Your task to perform on an android device: change the clock display to digital Image 0: 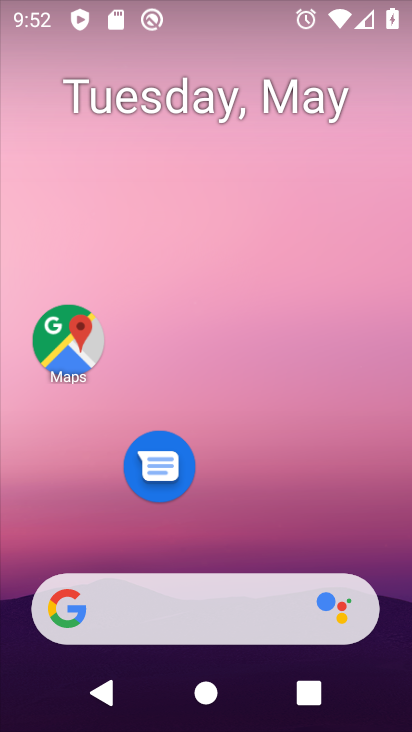
Step 0: drag from (384, 662) to (231, 115)
Your task to perform on an android device: change the clock display to digital Image 1: 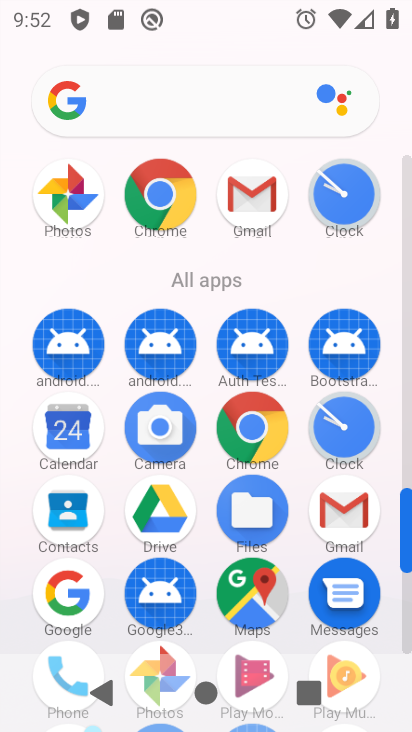
Step 1: click (338, 419)
Your task to perform on an android device: change the clock display to digital Image 2: 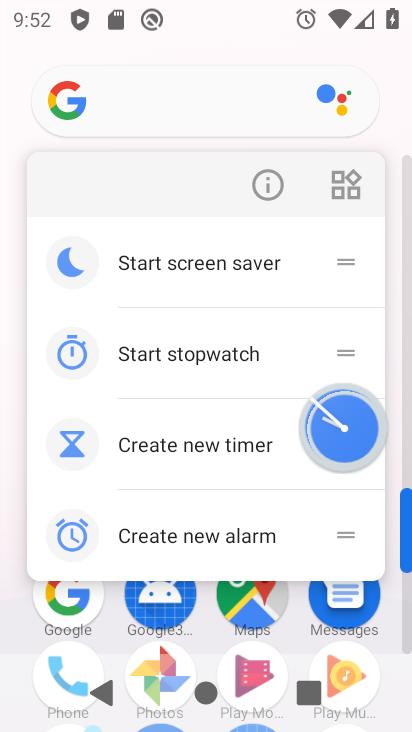
Step 2: click (347, 418)
Your task to perform on an android device: change the clock display to digital Image 3: 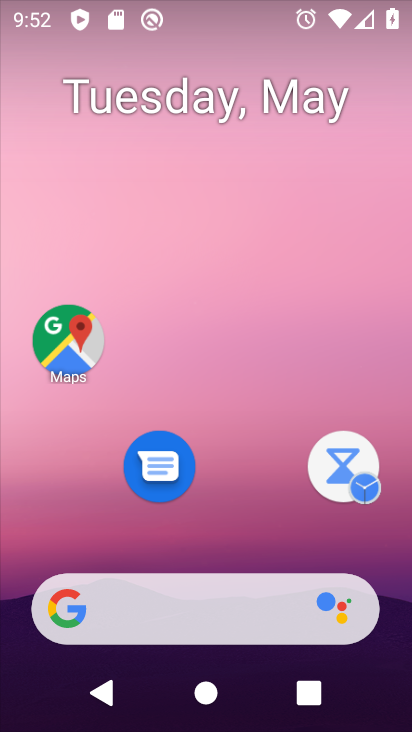
Step 3: drag from (358, 664) to (238, 5)
Your task to perform on an android device: change the clock display to digital Image 4: 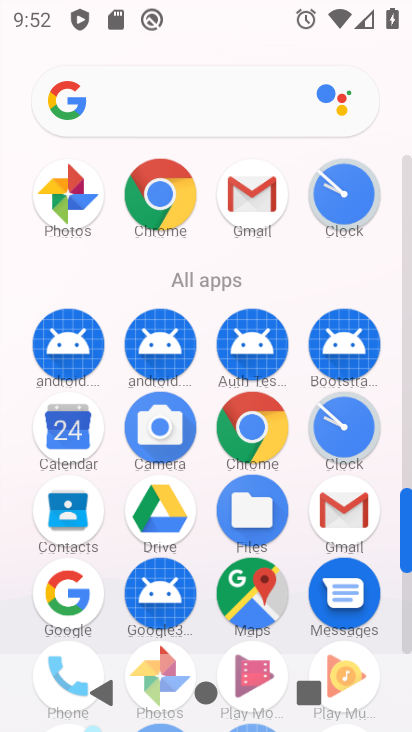
Step 4: click (333, 431)
Your task to perform on an android device: change the clock display to digital Image 5: 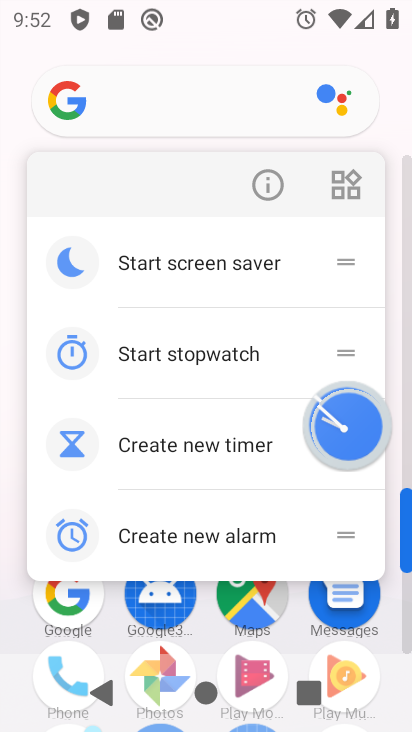
Step 5: click (337, 429)
Your task to perform on an android device: change the clock display to digital Image 6: 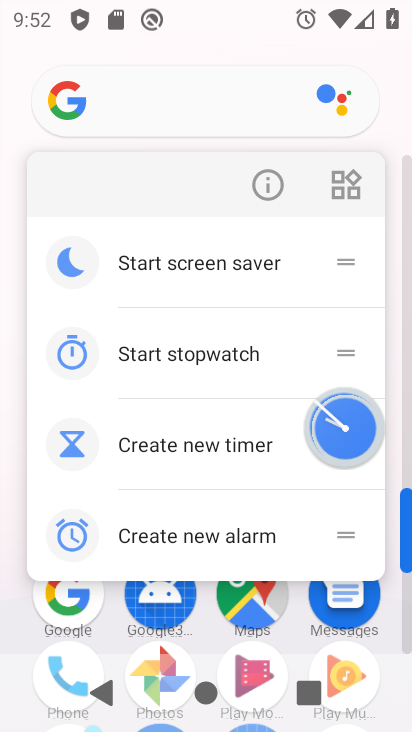
Step 6: click (337, 429)
Your task to perform on an android device: change the clock display to digital Image 7: 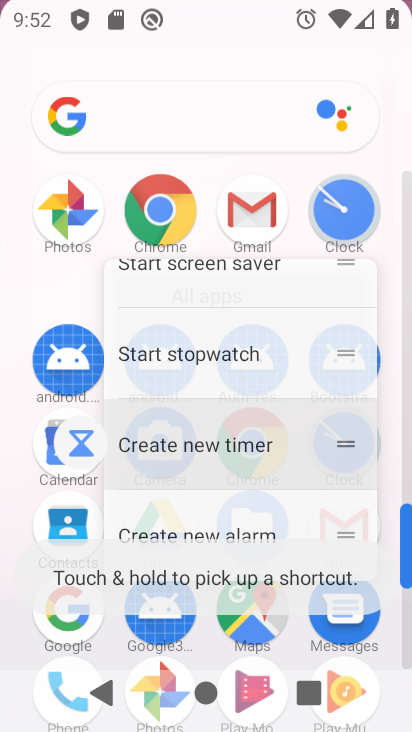
Step 7: click (339, 429)
Your task to perform on an android device: change the clock display to digital Image 8: 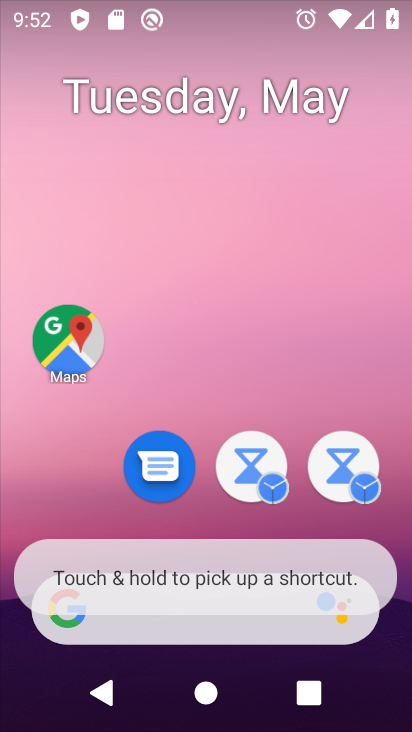
Step 8: drag from (369, 661) to (248, 110)
Your task to perform on an android device: change the clock display to digital Image 9: 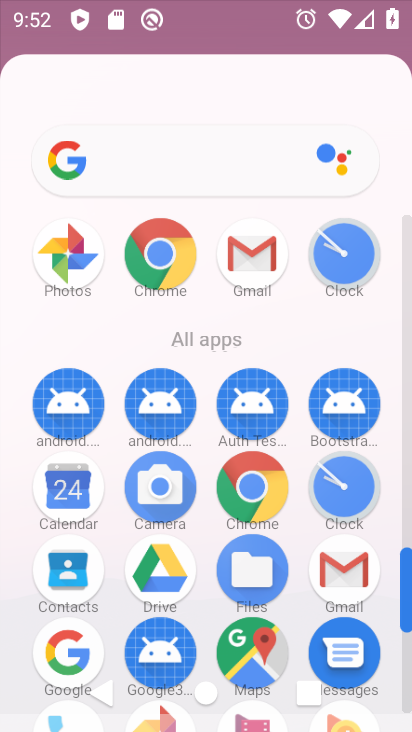
Step 9: drag from (288, 509) to (174, 112)
Your task to perform on an android device: change the clock display to digital Image 10: 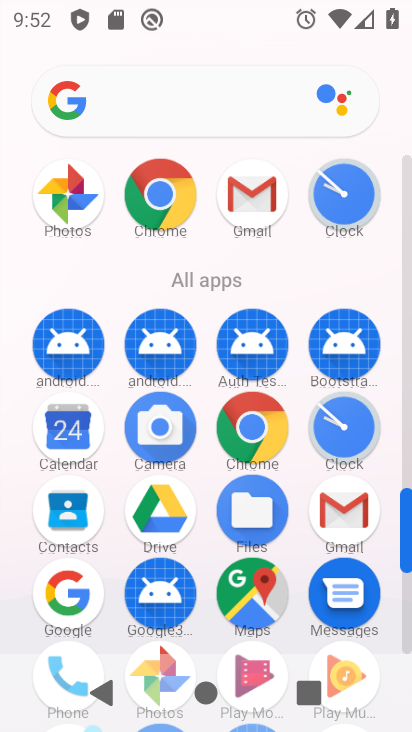
Step 10: drag from (333, 688) to (221, 72)
Your task to perform on an android device: change the clock display to digital Image 11: 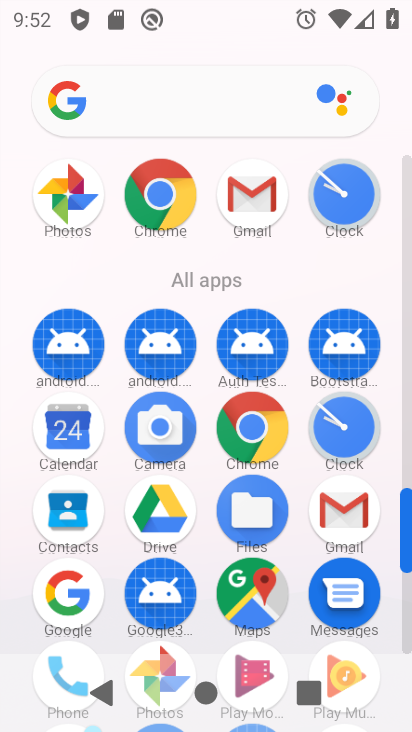
Step 11: click (333, 418)
Your task to perform on an android device: change the clock display to digital Image 12: 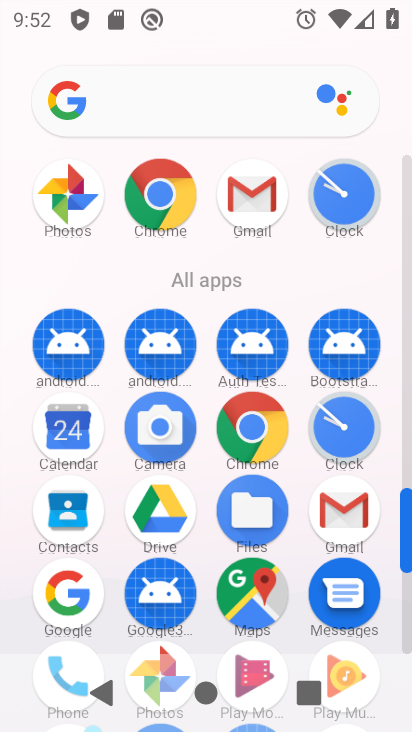
Step 12: click (333, 418)
Your task to perform on an android device: change the clock display to digital Image 13: 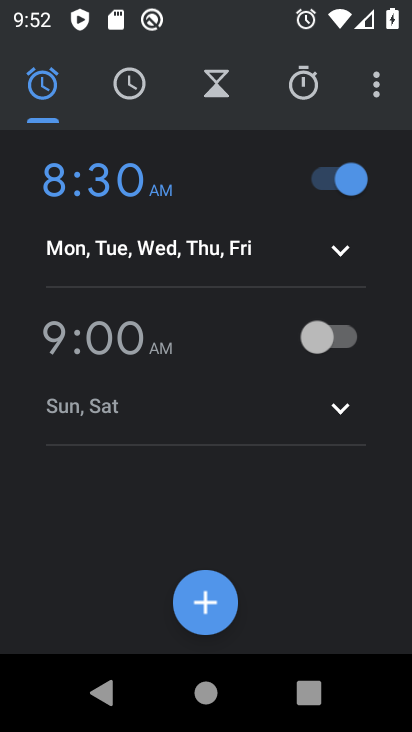
Step 13: click (377, 82)
Your task to perform on an android device: change the clock display to digital Image 14: 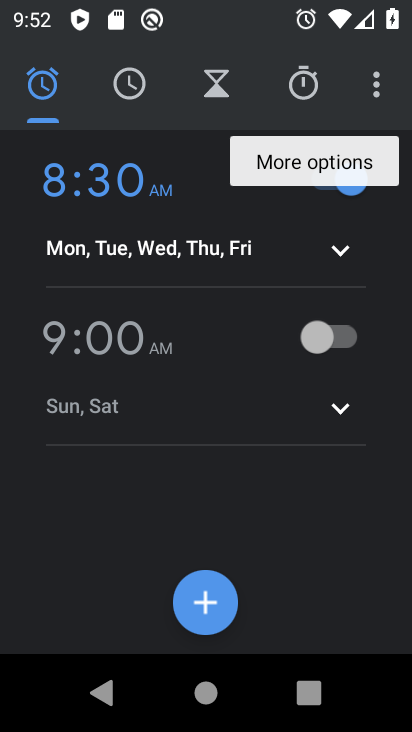
Step 14: click (378, 98)
Your task to perform on an android device: change the clock display to digital Image 15: 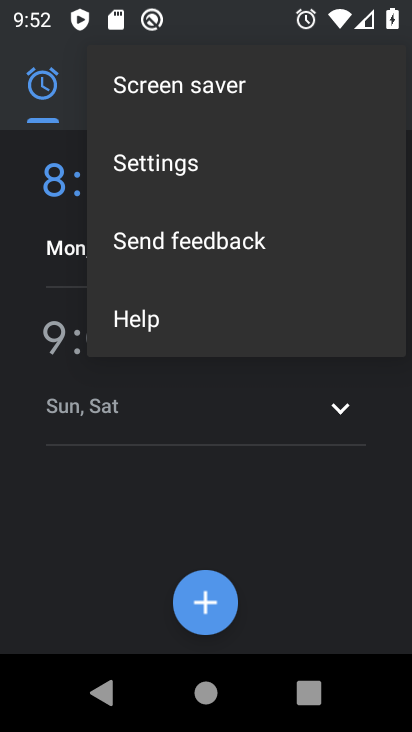
Step 15: click (379, 96)
Your task to perform on an android device: change the clock display to digital Image 16: 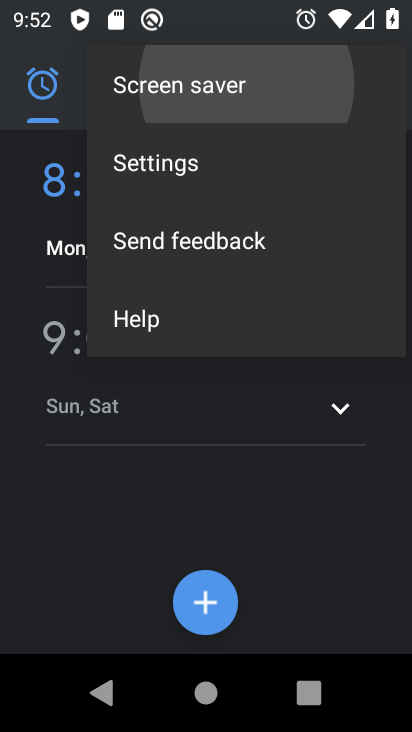
Step 16: click (379, 96)
Your task to perform on an android device: change the clock display to digital Image 17: 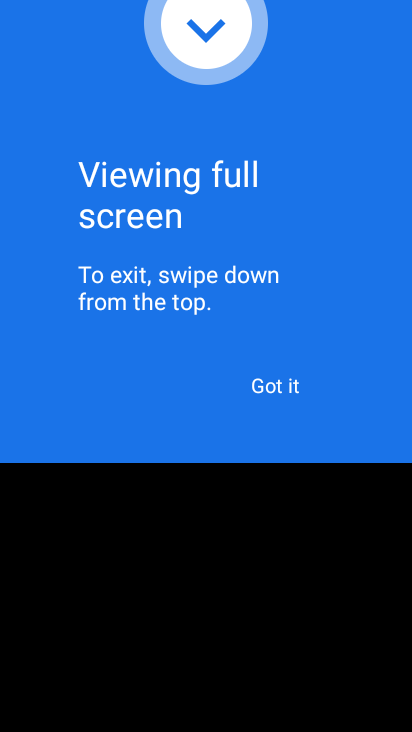
Step 17: click (267, 375)
Your task to perform on an android device: change the clock display to digital Image 18: 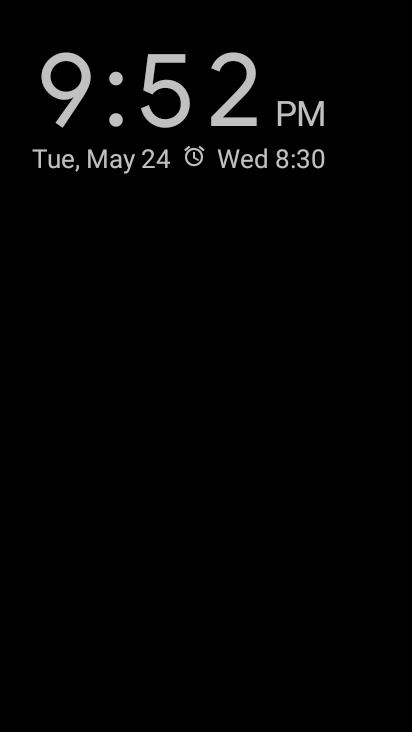
Step 18: press back button
Your task to perform on an android device: change the clock display to digital Image 19: 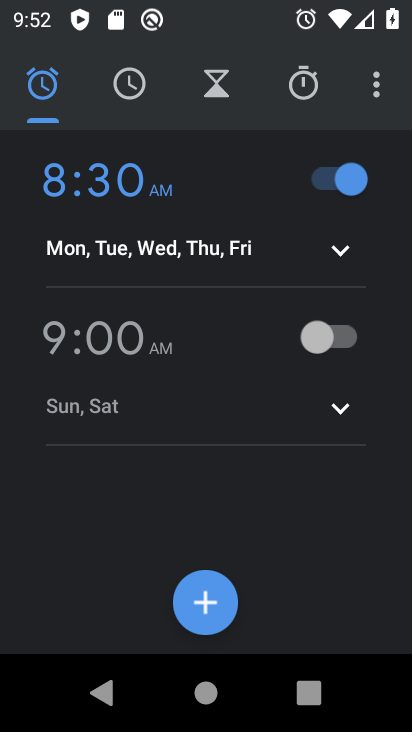
Step 19: drag from (373, 84) to (170, 165)
Your task to perform on an android device: change the clock display to digital Image 20: 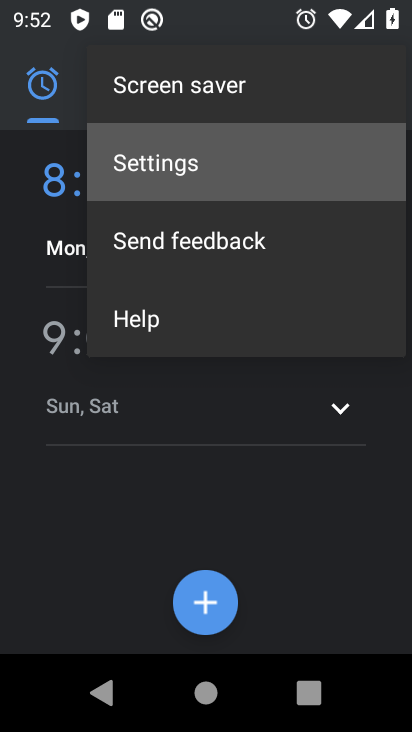
Step 20: click (170, 165)
Your task to perform on an android device: change the clock display to digital Image 21: 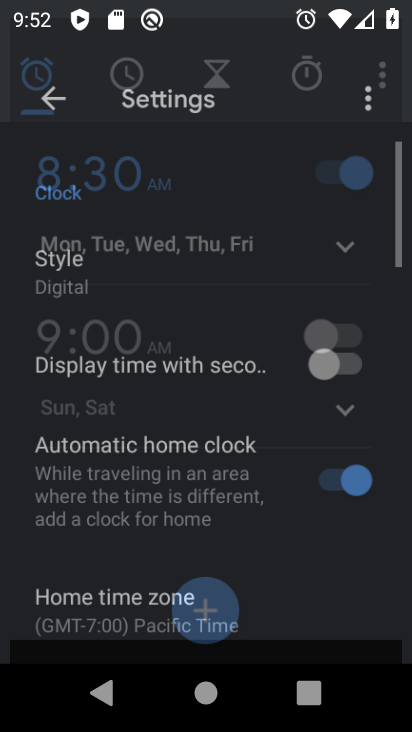
Step 21: click (171, 164)
Your task to perform on an android device: change the clock display to digital Image 22: 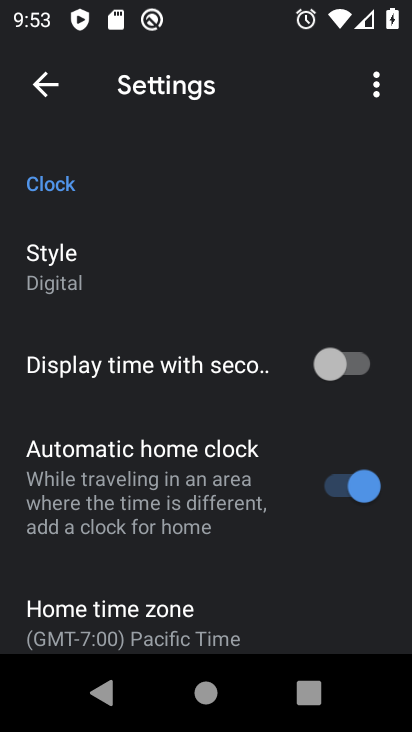
Step 22: task complete